Your task to perform on an android device: Toggle the flashlight Image 0: 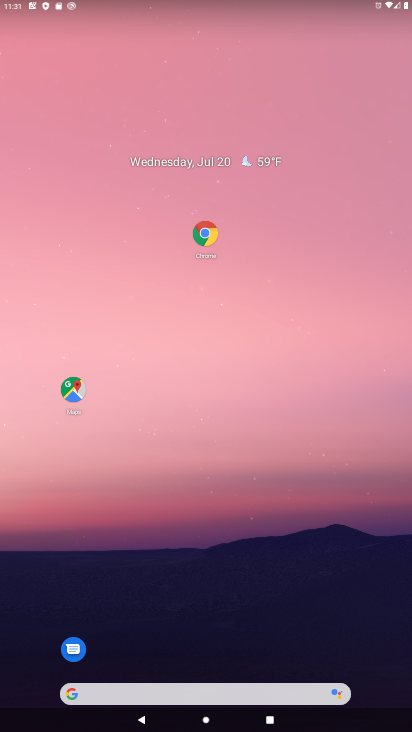
Step 0: drag from (198, 587) to (180, 27)
Your task to perform on an android device: Toggle the flashlight Image 1: 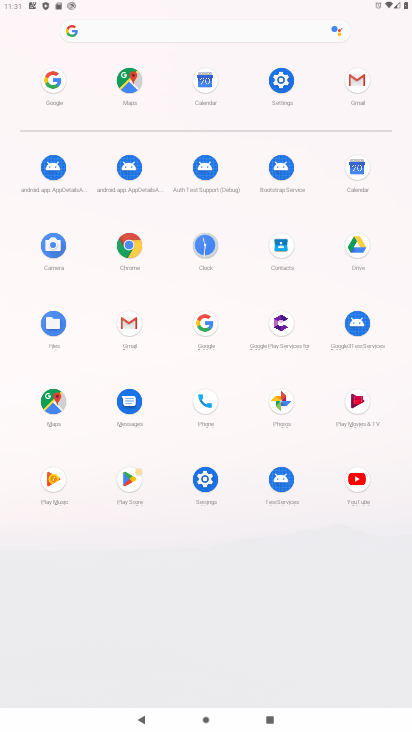
Step 1: click (284, 79)
Your task to perform on an android device: Toggle the flashlight Image 2: 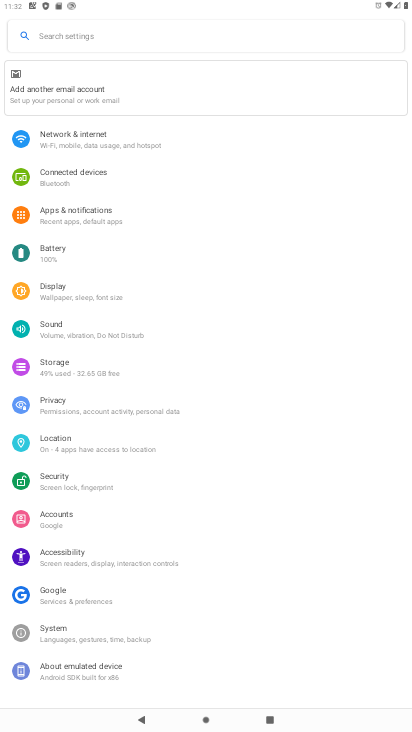
Step 2: click (154, 29)
Your task to perform on an android device: Toggle the flashlight Image 3: 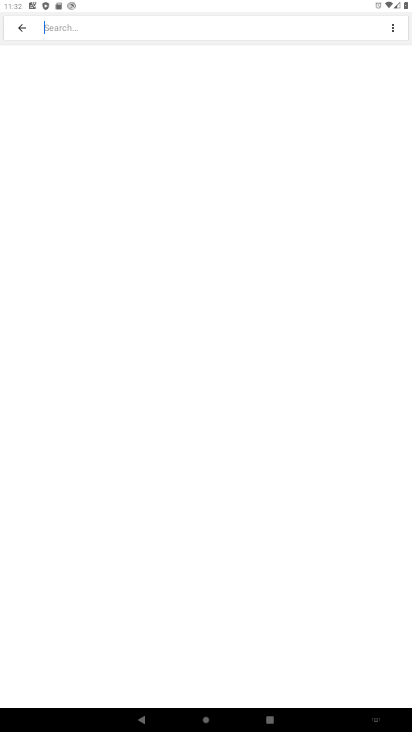
Step 3: type "flash "
Your task to perform on an android device: Toggle the flashlight Image 4: 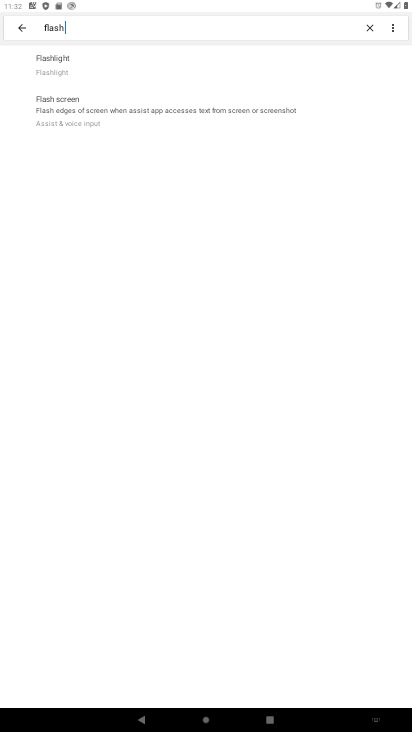
Step 4: task complete